Your task to perform on an android device: turn off notifications in google photos Image 0: 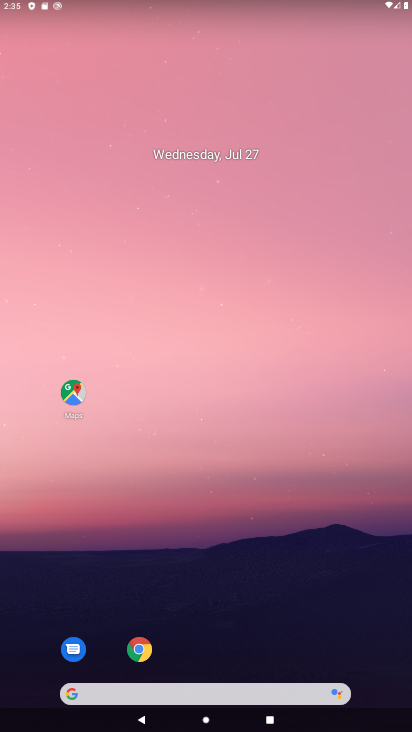
Step 0: drag from (315, 622) to (13, 4)
Your task to perform on an android device: turn off notifications in google photos Image 1: 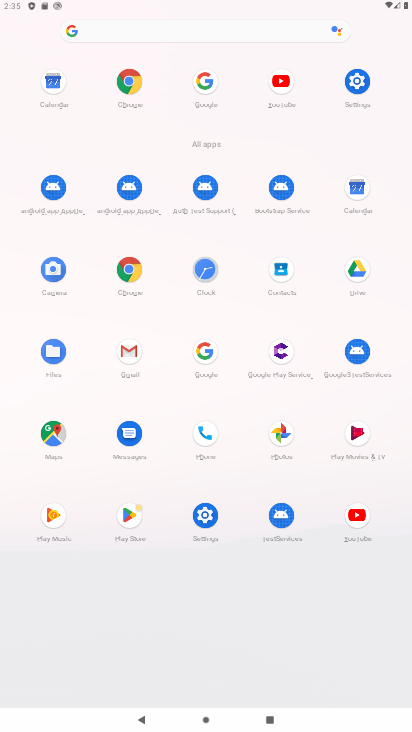
Step 1: click (273, 441)
Your task to perform on an android device: turn off notifications in google photos Image 2: 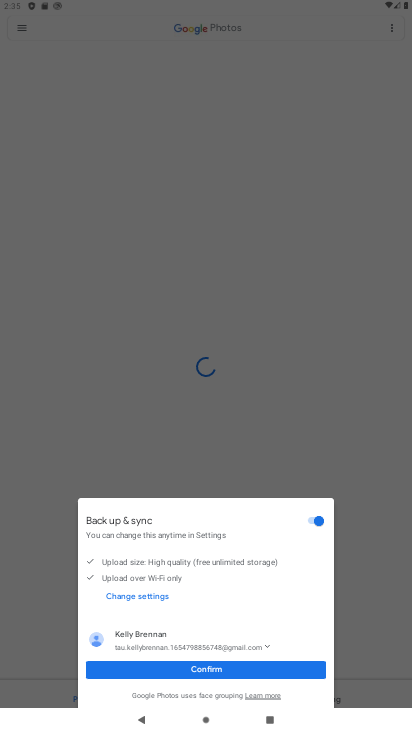
Step 2: click (198, 665)
Your task to perform on an android device: turn off notifications in google photos Image 3: 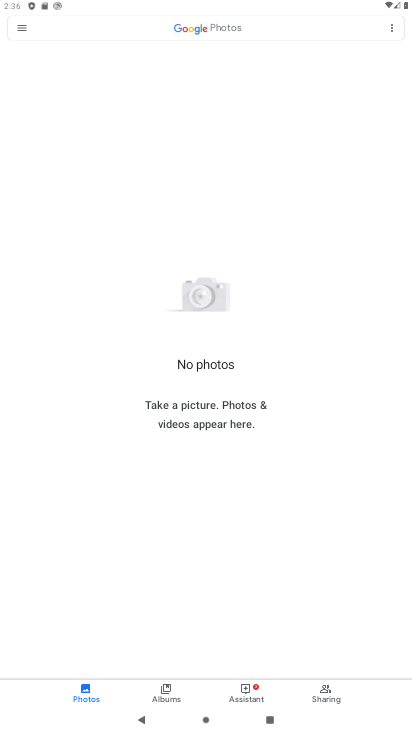
Step 3: click (28, 29)
Your task to perform on an android device: turn off notifications in google photos Image 4: 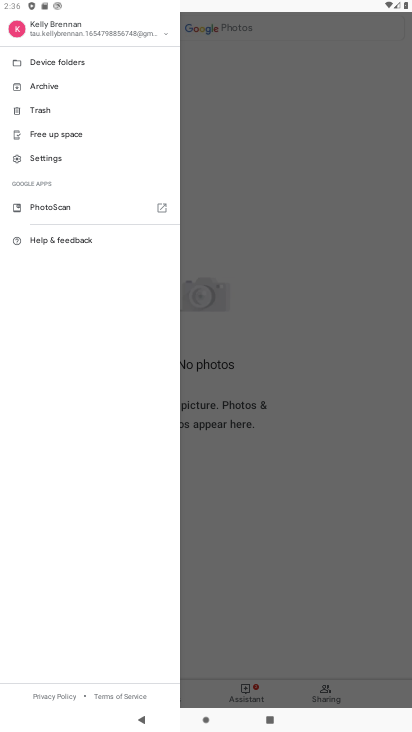
Step 4: click (37, 162)
Your task to perform on an android device: turn off notifications in google photos Image 5: 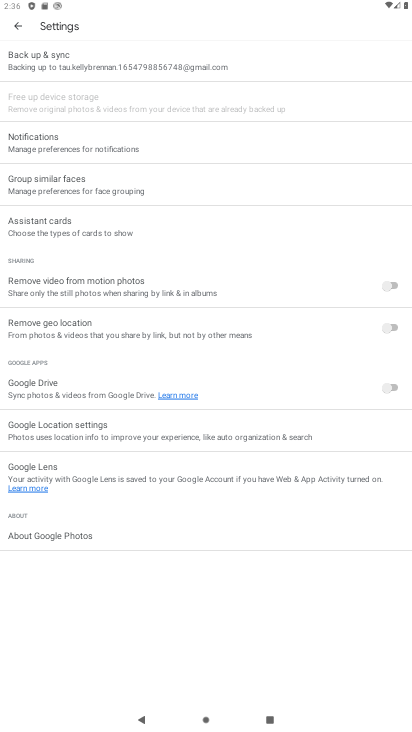
Step 5: click (77, 152)
Your task to perform on an android device: turn off notifications in google photos Image 6: 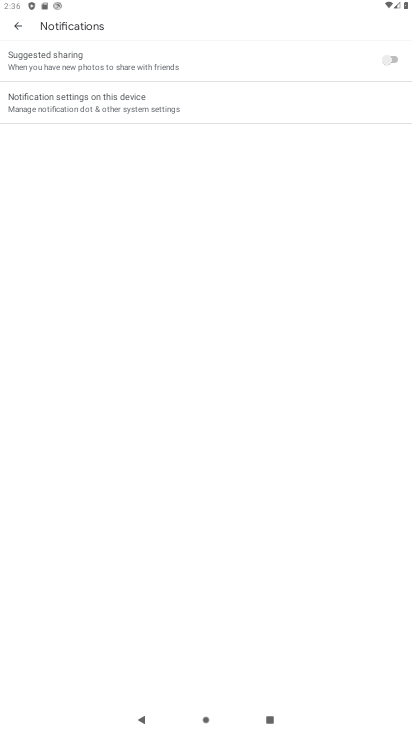
Step 6: task complete